Your task to perform on an android device: turn on the 24-hour format for clock Image 0: 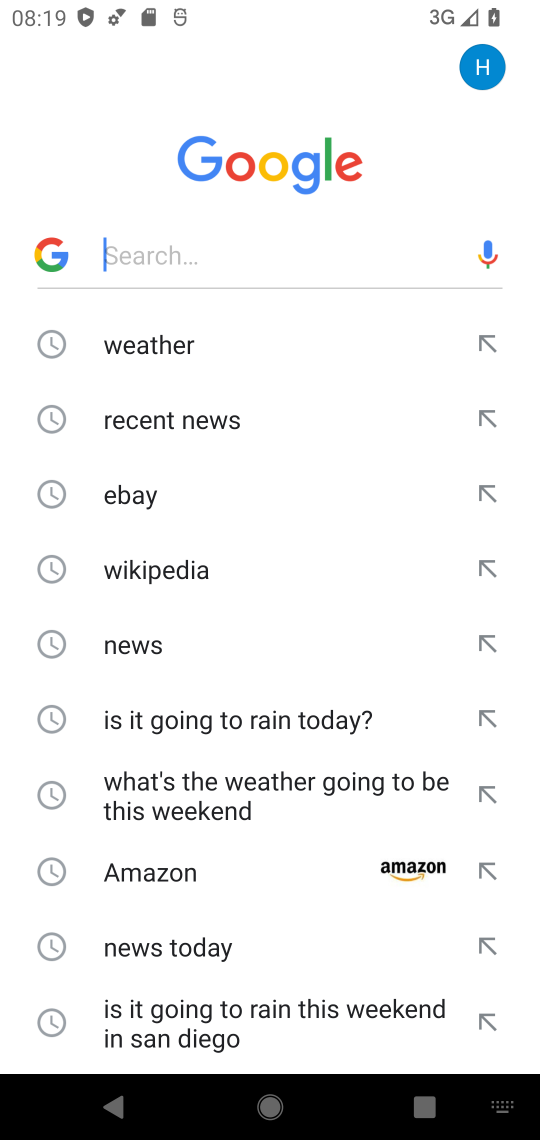
Step 0: press home button
Your task to perform on an android device: turn on the 24-hour format for clock Image 1: 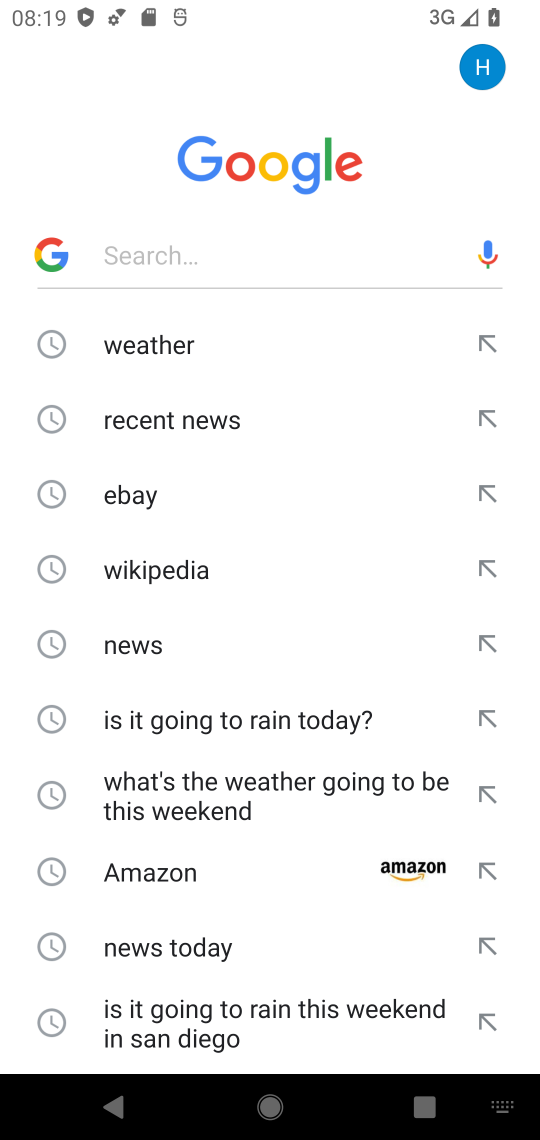
Step 1: press home button
Your task to perform on an android device: turn on the 24-hour format for clock Image 2: 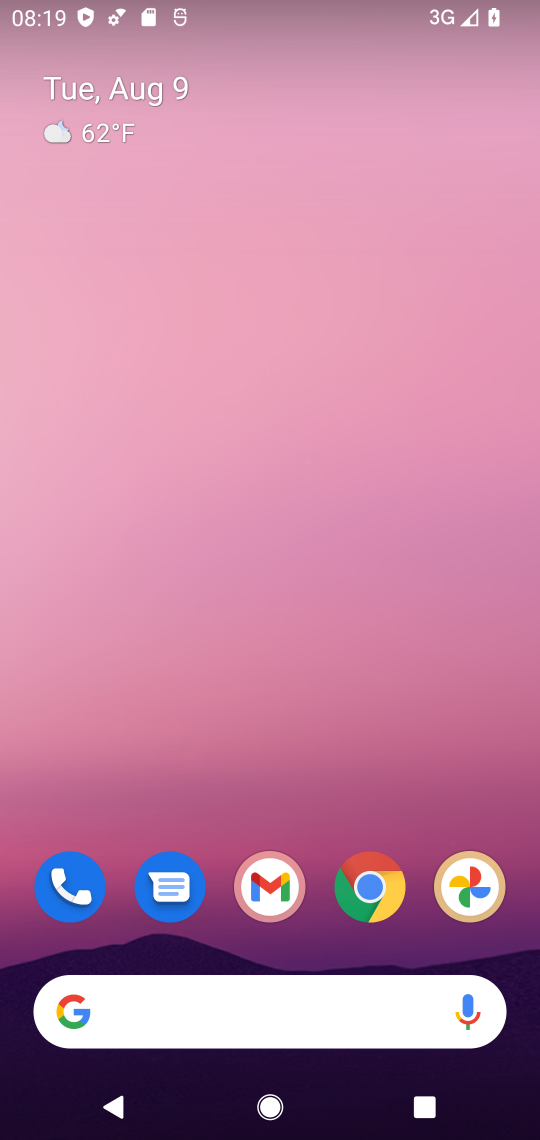
Step 2: drag from (305, 763) to (282, 22)
Your task to perform on an android device: turn on the 24-hour format for clock Image 3: 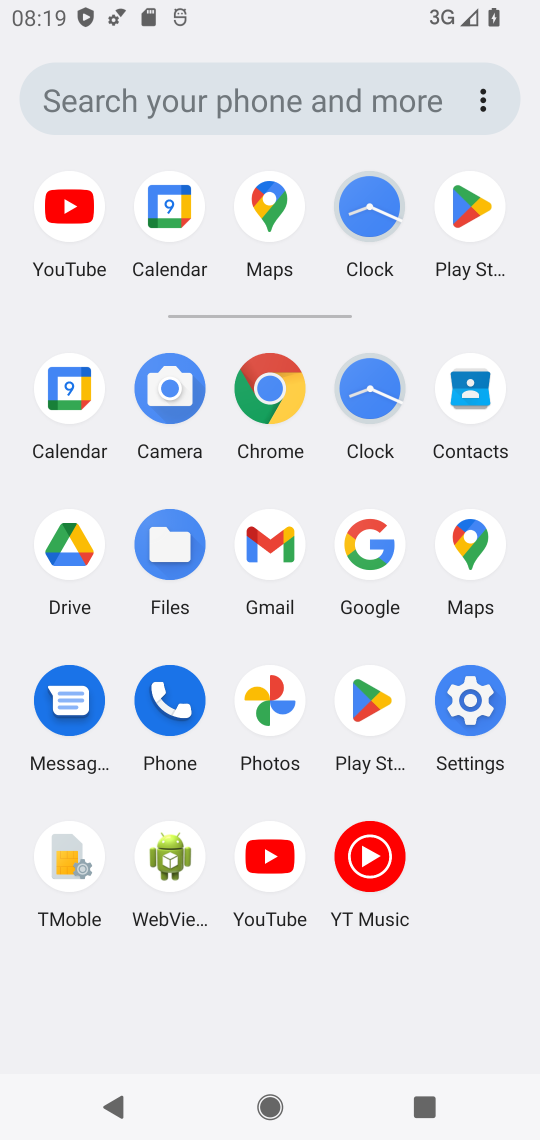
Step 3: click (377, 202)
Your task to perform on an android device: turn on the 24-hour format for clock Image 4: 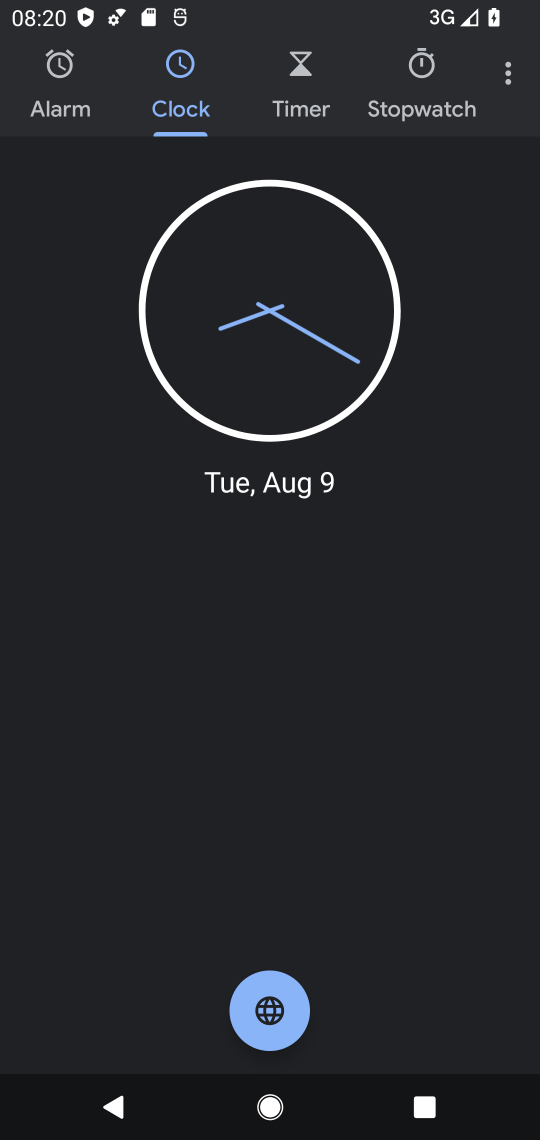
Step 4: click (513, 75)
Your task to perform on an android device: turn on the 24-hour format for clock Image 5: 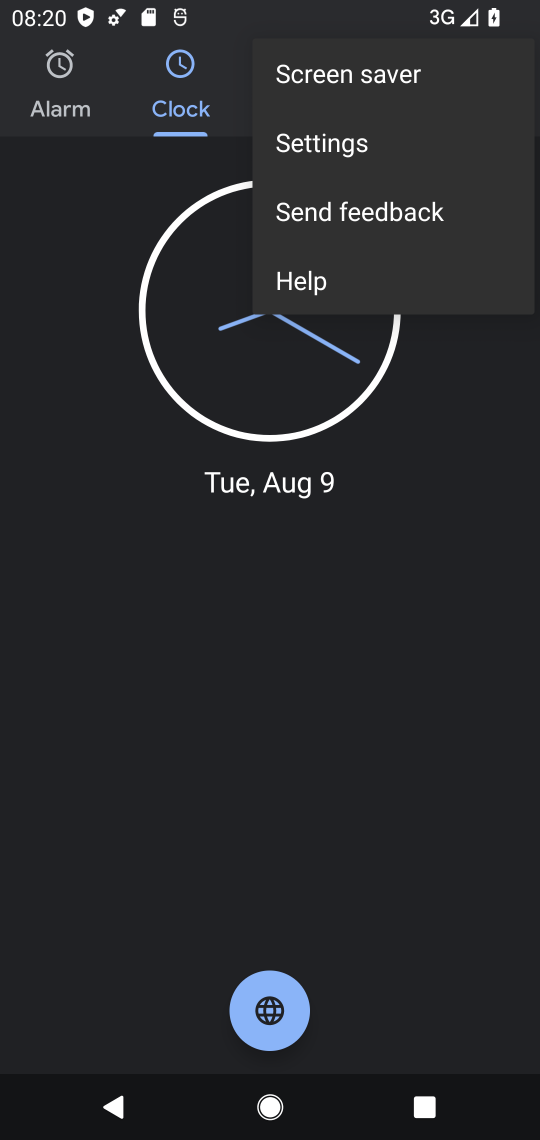
Step 5: click (407, 139)
Your task to perform on an android device: turn on the 24-hour format for clock Image 6: 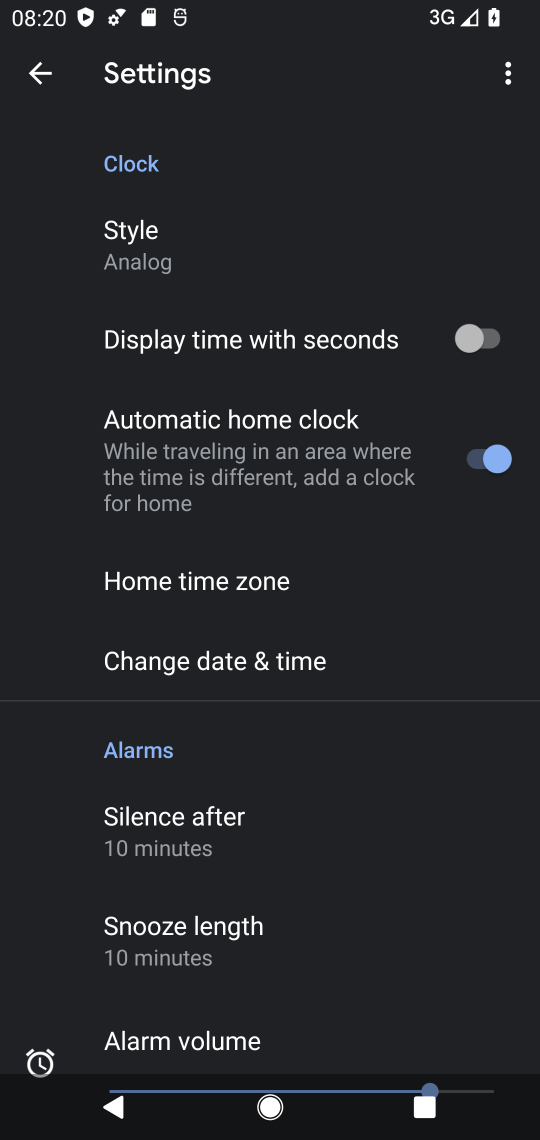
Step 6: click (410, 656)
Your task to perform on an android device: turn on the 24-hour format for clock Image 7: 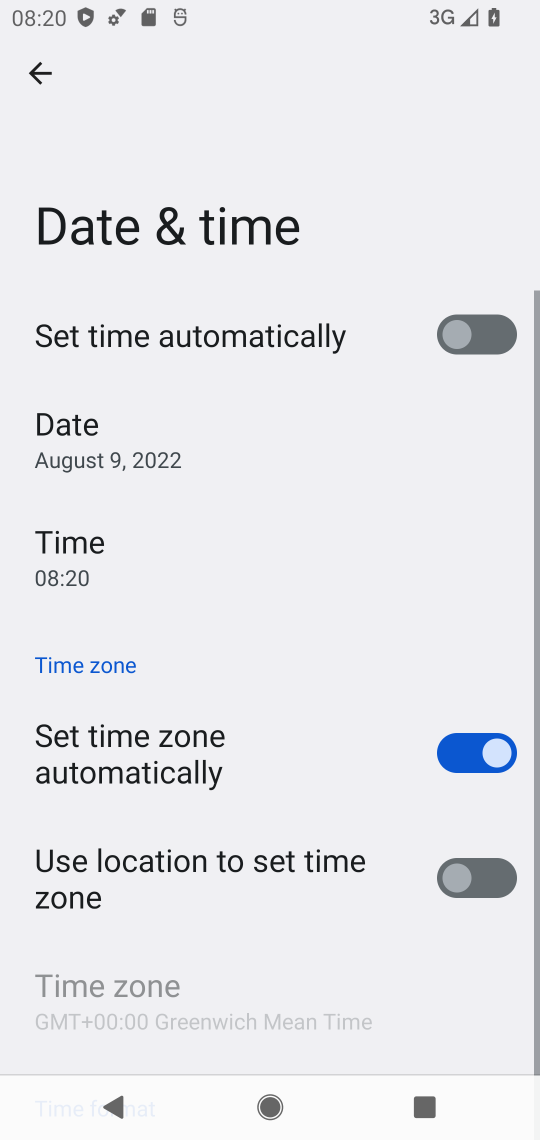
Step 7: task complete